Your task to perform on an android device: Go to ESPN.com Image 0: 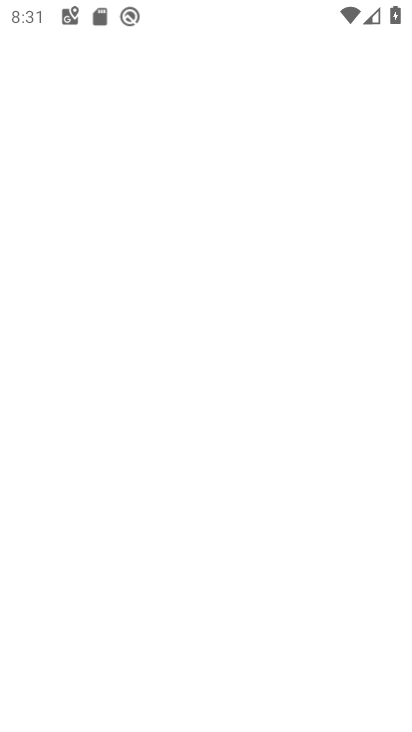
Step 0: drag from (301, 588) to (405, 605)
Your task to perform on an android device: Go to ESPN.com Image 1: 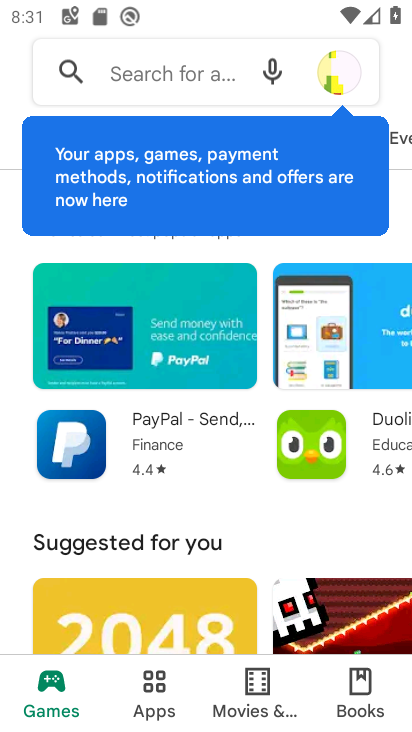
Step 1: press home button
Your task to perform on an android device: Go to ESPN.com Image 2: 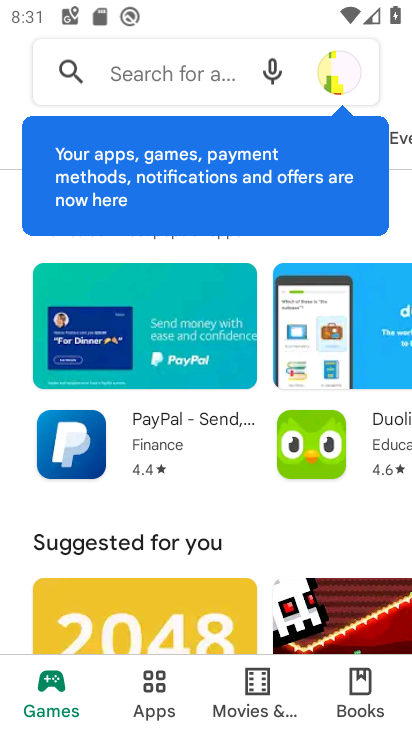
Step 2: drag from (405, 605) to (408, 532)
Your task to perform on an android device: Go to ESPN.com Image 3: 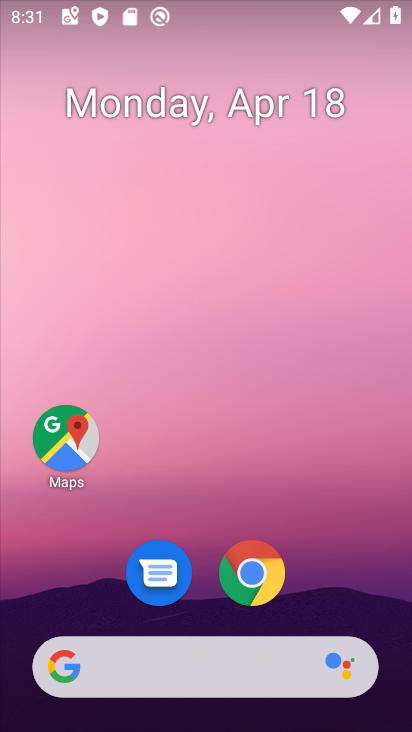
Step 3: click (199, 669)
Your task to perform on an android device: Go to ESPN.com Image 4: 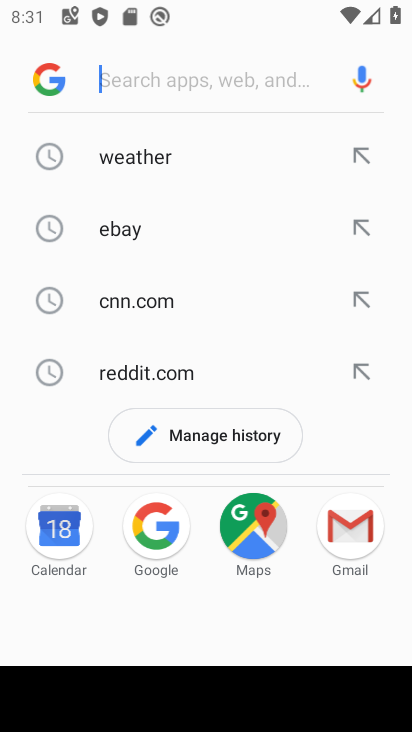
Step 4: type "ESPN.com"
Your task to perform on an android device: Go to ESPN.com Image 5: 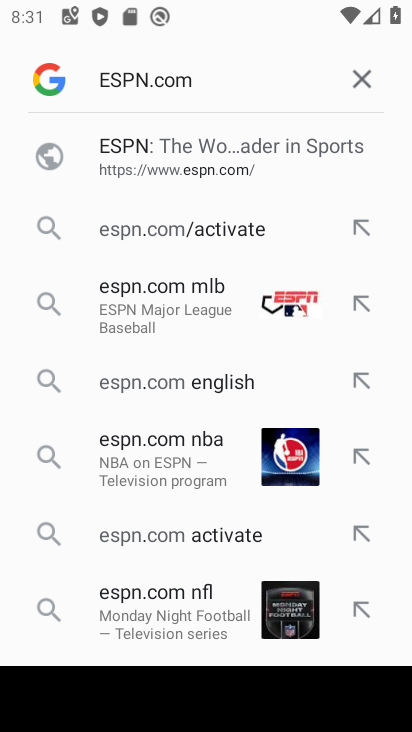
Step 5: click (209, 161)
Your task to perform on an android device: Go to ESPN.com Image 6: 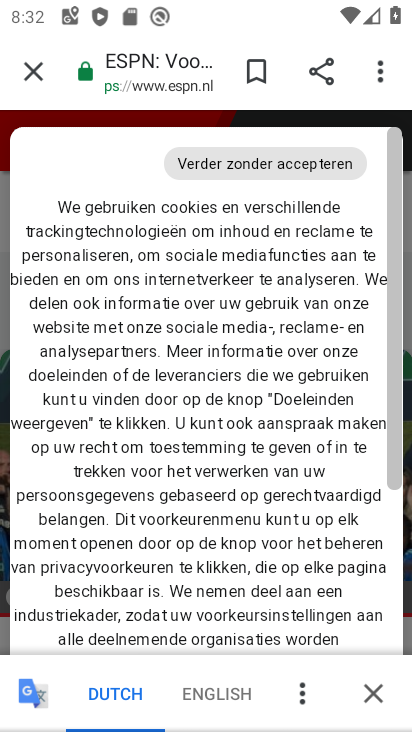
Step 6: task complete